Your task to perform on an android device: Search for hotels in Miami Image 0: 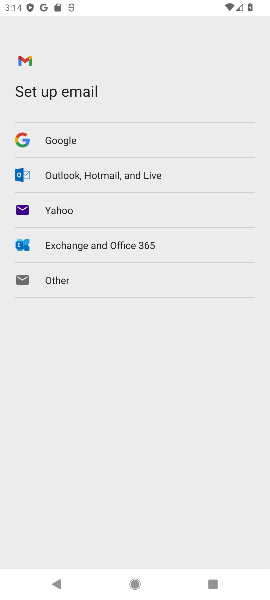
Step 0: press home button
Your task to perform on an android device: Search for hotels in Miami Image 1: 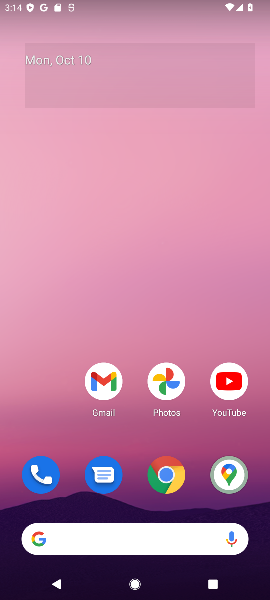
Step 1: drag from (141, 431) to (183, 187)
Your task to perform on an android device: Search for hotels in Miami Image 2: 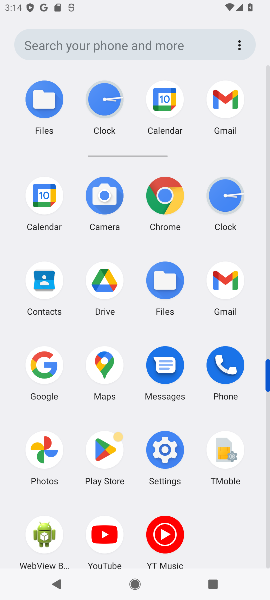
Step 2: click (55, 378)
Your task to perform on an android device: Search for hotels in Miami Image 3: 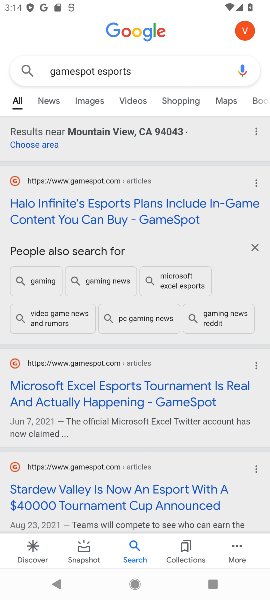
Step 3: click (203, 65)
Your task to perform on an android device: Search for hotels in Miami Image 4: 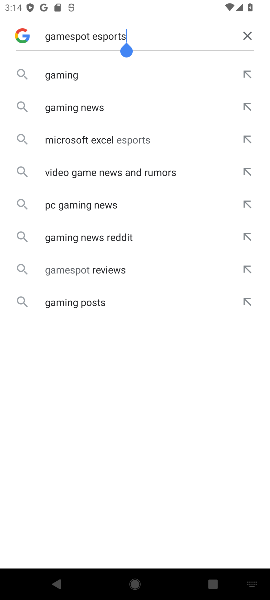
Step 4: click (247, 34)
Your task to perform on an android device: Search for hotels in Miami Image 5: 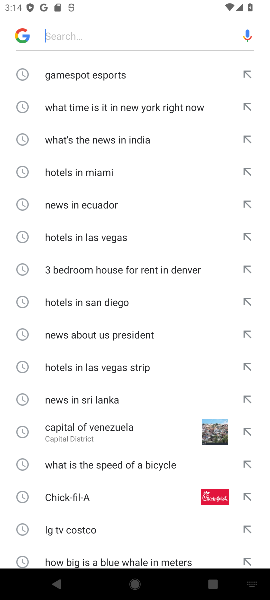
Step 5: type "hotels in Miami"
Your task to perform on an android device: Search for hotels in Miami Image 6: 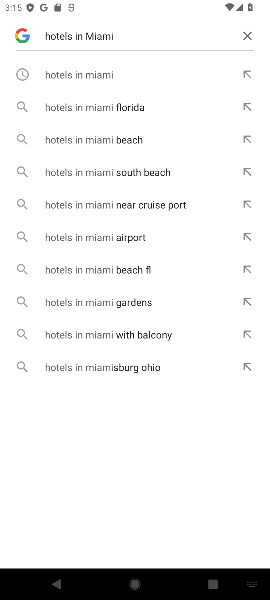
Step 6: click (104, 74)
Your task to perform on an android device: Search for hotels in Miami Image 7: 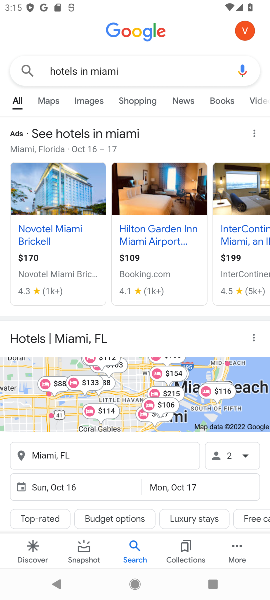
Step 7: task complete